Your task to perform on an android device: read, delete, or share a saved page in the chrome app Image 0: 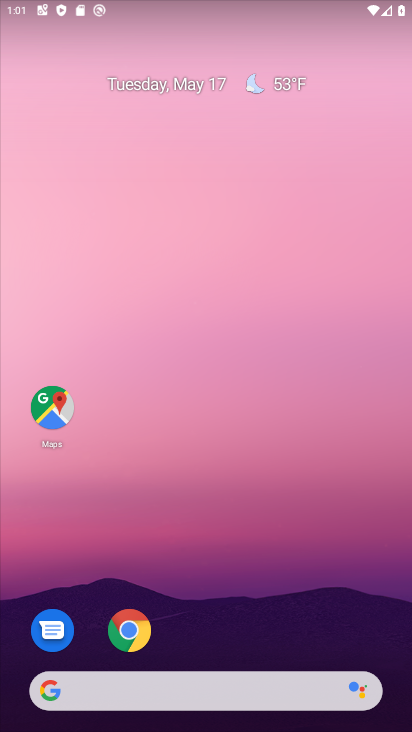
Step 0: drag from (278, 643) to (278, 227)
Your task to perform on an android device: read, delete, or share a saved page in the chrome app Image 1: 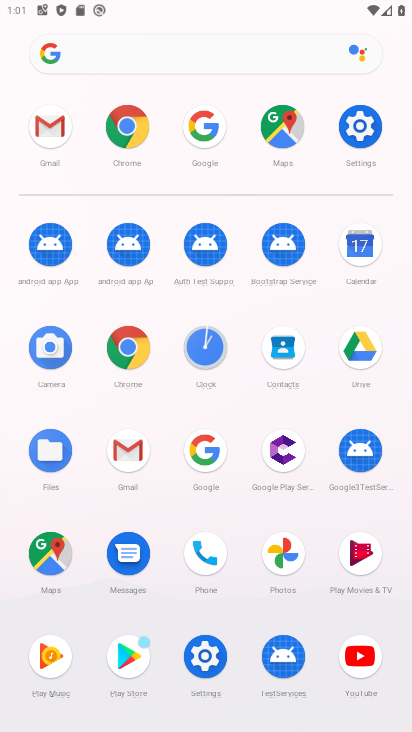
Step 1: click (131, 153)
Your task to perform on an android device: read, delete, or share a saved page in the chrome app Image 2: 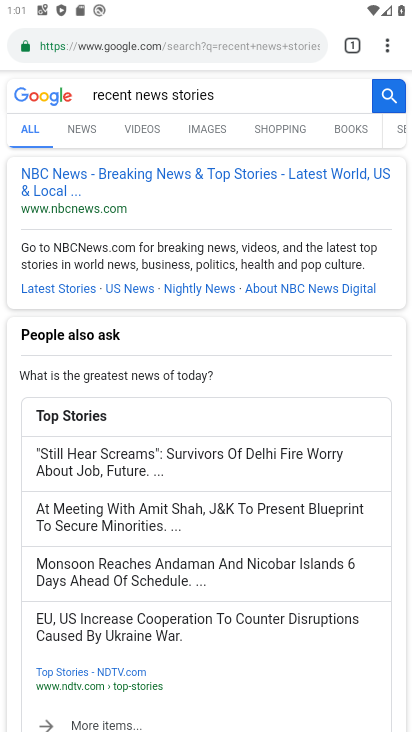
Step 2: click (390, 45)
Your task to perform on an android device: read, delete, or share a saved page in the chrome app Image 3: 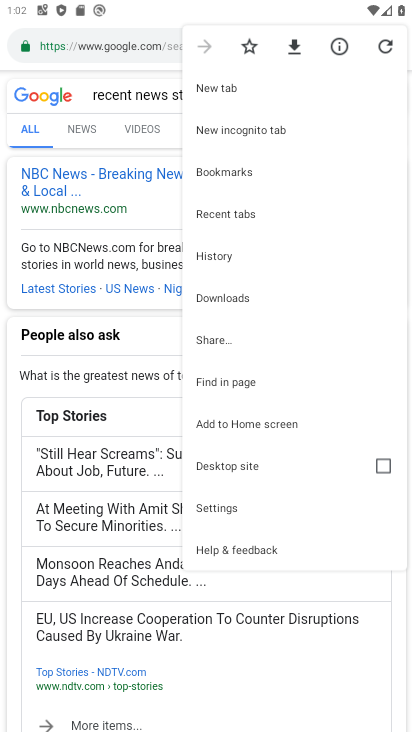
Step 3: click (237, 304)
Your task to perform on an android device: read, delete, or share a saved page in the chrome app Image 4: 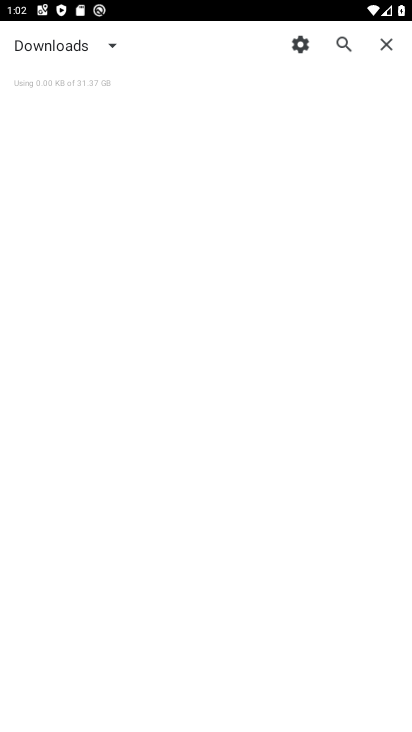
Step 4: click (102, 45)
Your task to perform on an android device: read, delete, or share a saved page in the chrome app Image 5: 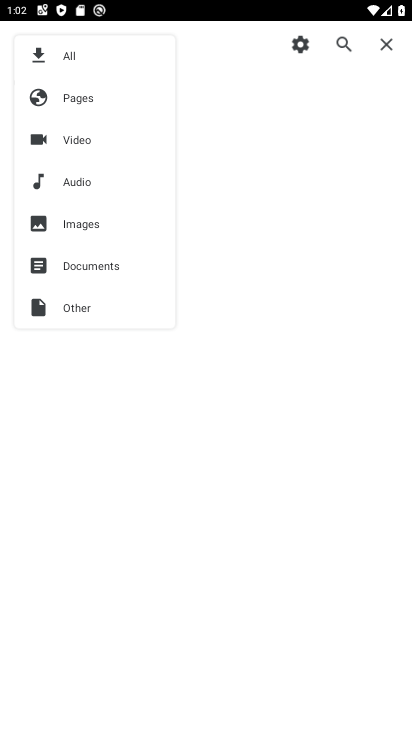
Step 5: click (90, 107)
Your task to perform on an android device: read, delete, or share a saved page in the chrome app Image 6: 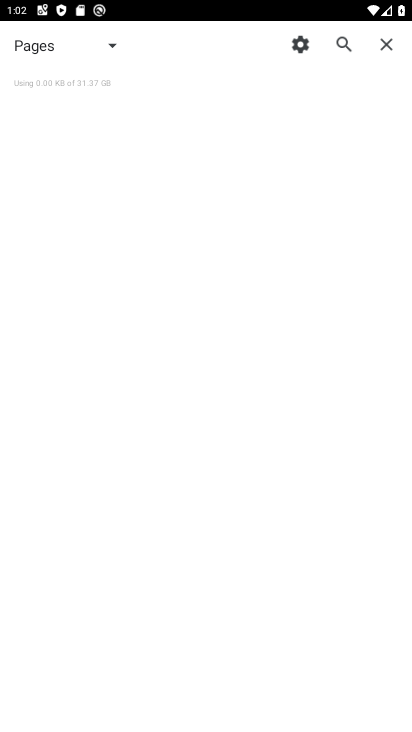
Step 6: task complete